Your task to perform on an android device: Search for vegetarian restaurants on Maps Image 0: 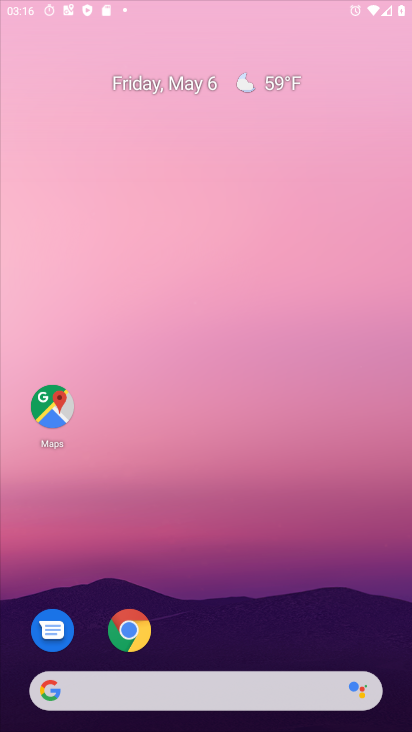
Step 0: click (203, 200)
Your task to perform on an android device: Search for vegetarian restaurants on Maps Image 1: 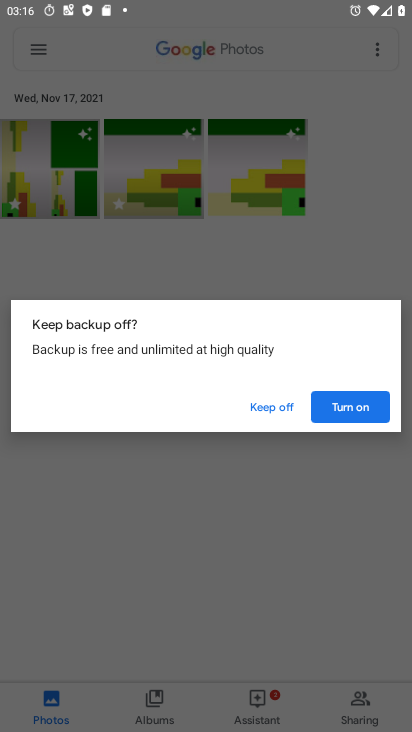
Step 1: press home button
Your task to perform on an android device: Search for vegetarian restaurants on Maps Image 2: 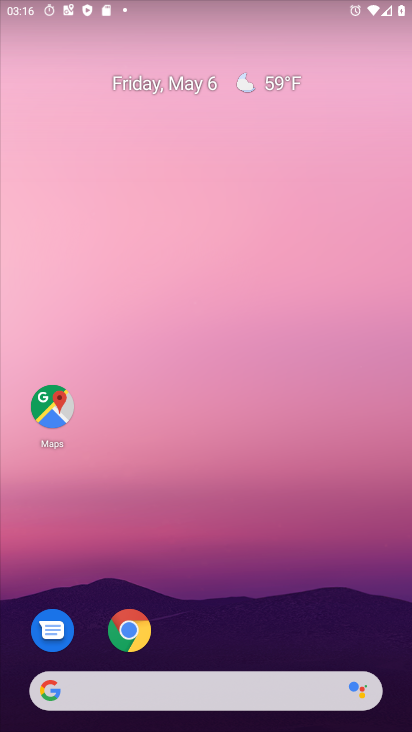
Step 2: click (55, 404)
Your task to perform on an android device: Search for vegetarian restaurants on Maps Image 3: 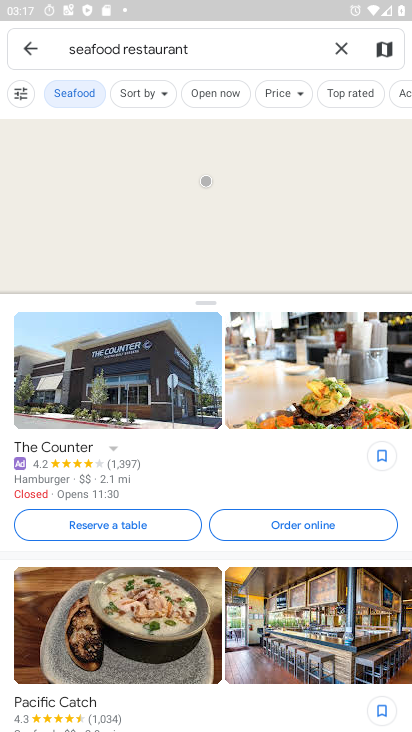
Step 3: click (343, 39)
Your task to perform on an android device: Search for vegetarian restaurants on Maps Image 4: 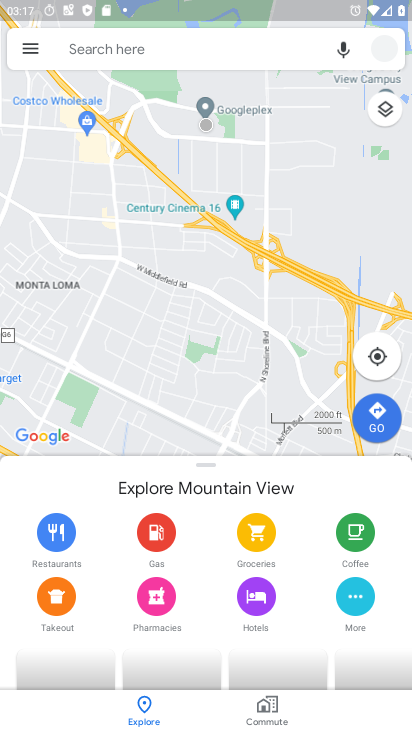
Step 4: click (205, 54)
Your task to perform on an android device: Search for vegetarian restaurants on Maps Image 5: 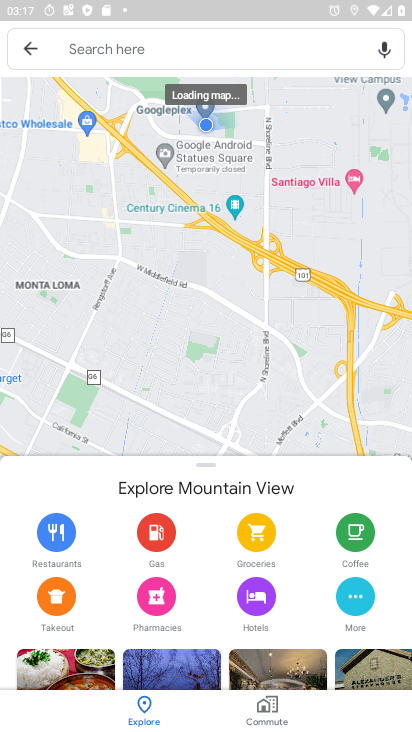
Step 5: type "vegetarian restaurants"
Your task to perform on an android device: Search for vegetarian restaurants on Maps Image 6: 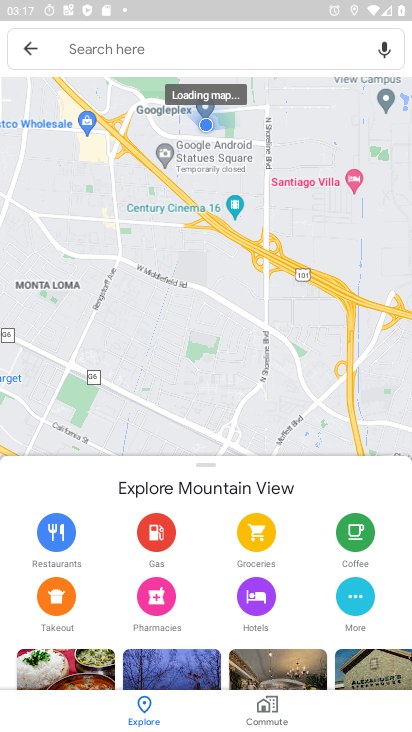
Step 6: click (147, 54)
Your task to perform on an android device: Search for vegetarian restaurants on Maps Image 7: 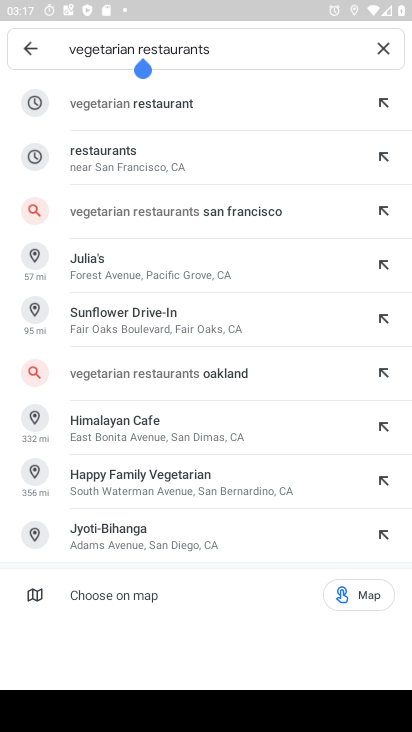
Step 7: click (164, 96)
Your task to perform on an android device: Search for vegetarian restaurants on Maps Image 8: 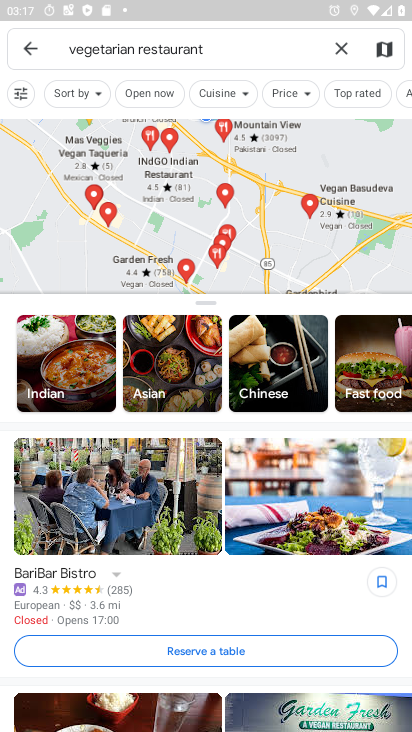
Step 8: task complete